Your task to perform on an android device: turn on the 12-hour format for clock Image 0: 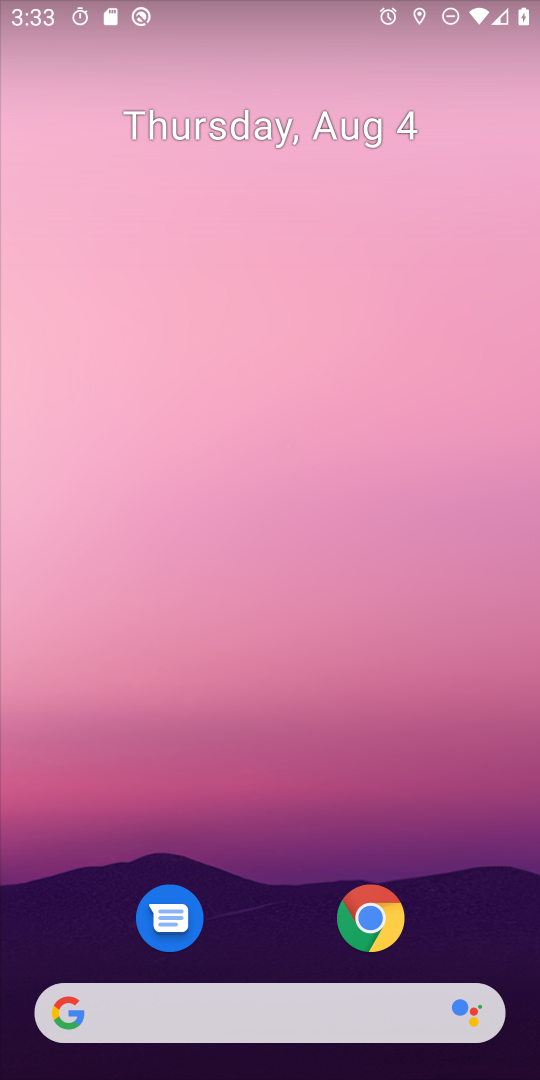
Step 0: drag from (260, 945) to (222, 385)
Your task to perform on an android device: turn on the 12-hour format for clock Image 1: 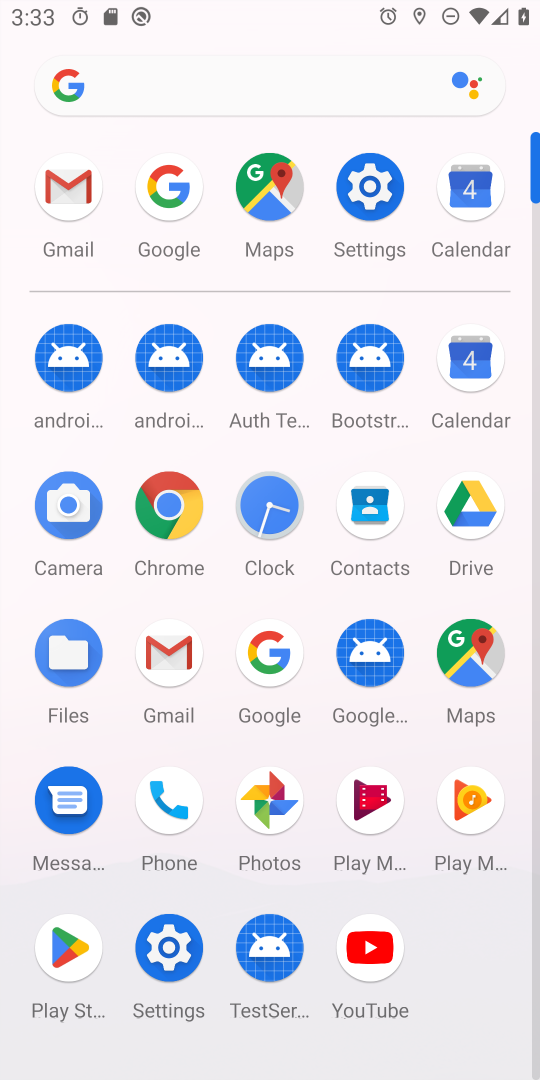
Step 1: click (283, 497)
Your task to perform on an android device: turn on the 12-hour format for clock Image 2: 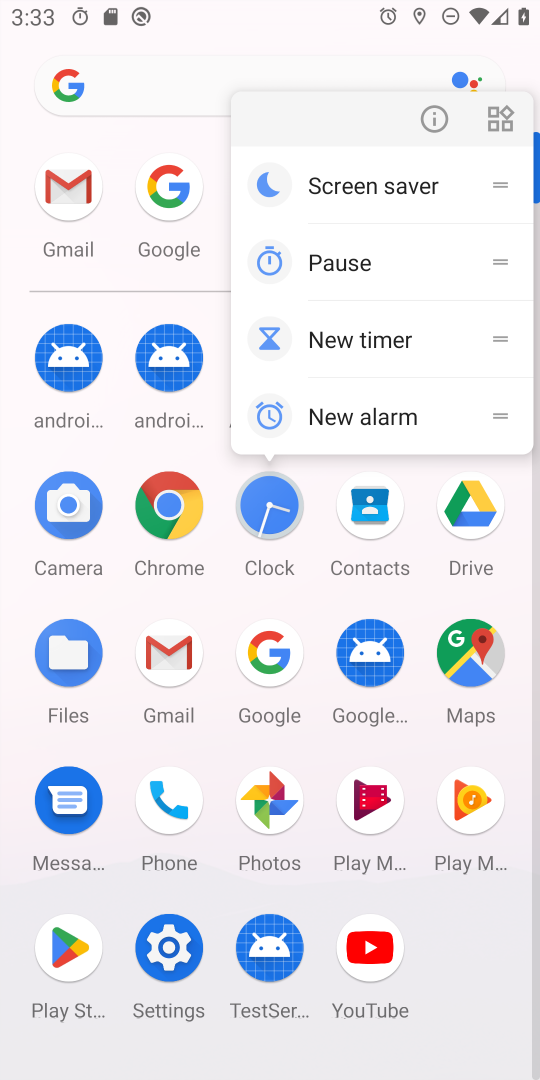
Step 2: click (283, 497)
Your task to perform on an android device: turn on the 12-hour format for clock Image 3: 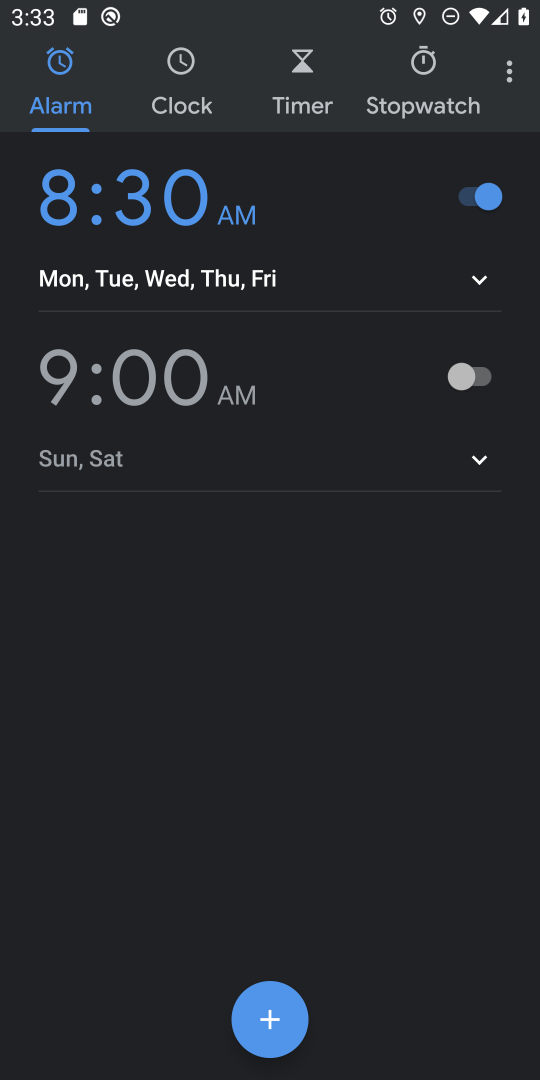
Step 3: click (518, 86)
Your task to perform on an android device: turn on the 12-hour format for clock Image 4: 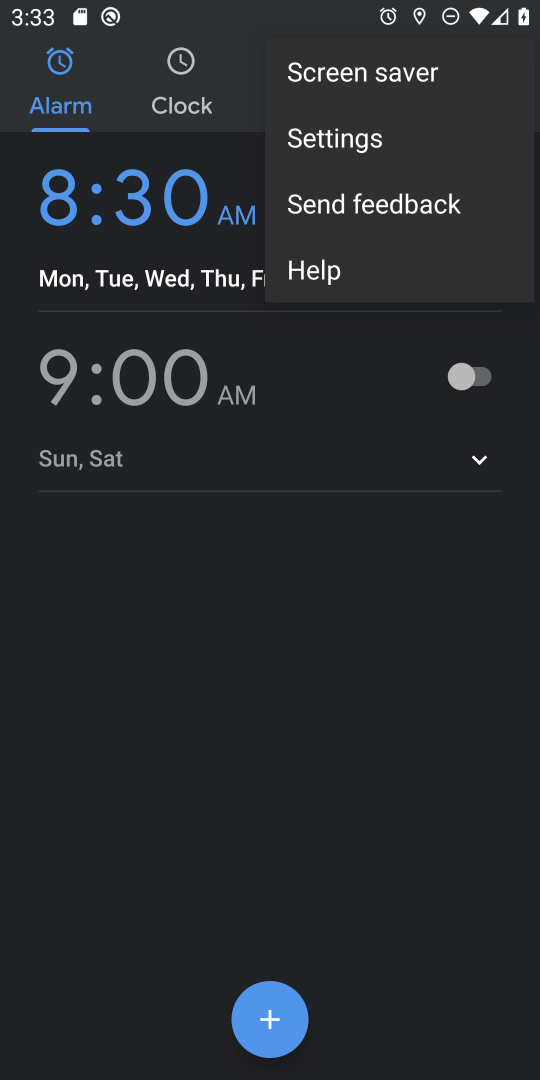
Step 4: click (432, 138)
Your task to perform on an android device: turn on the 12-hour format for clock Image 5: 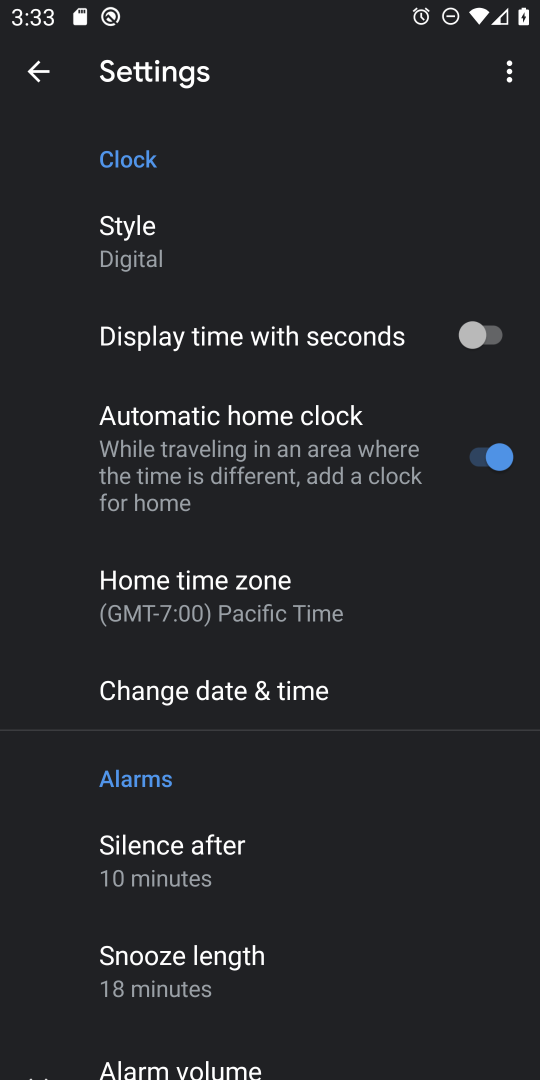
Step 5: click (313, 680)
Your task to perform on an android device: turn on the 12-hour format for clock Image 6: 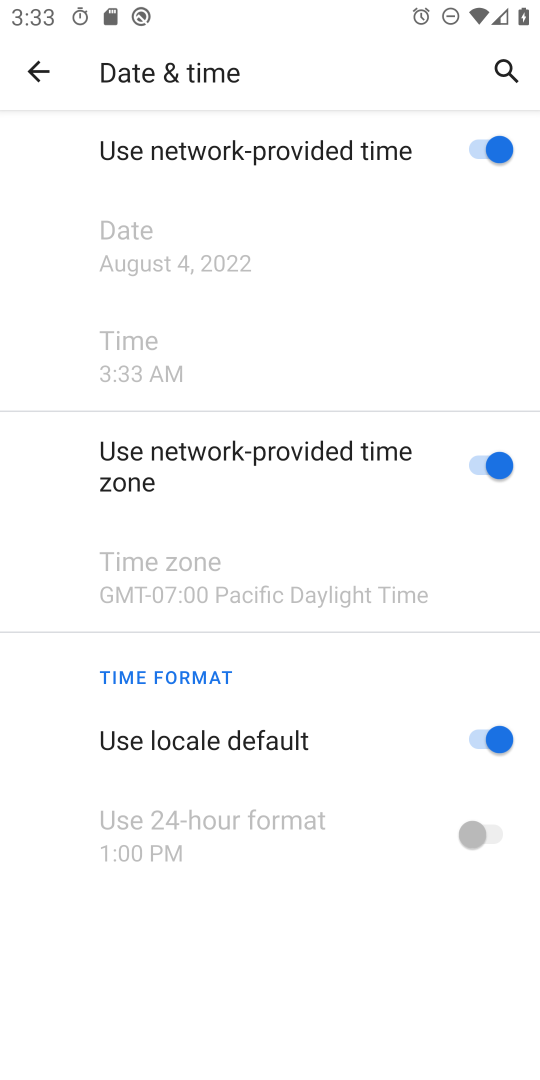
Step 6: task complete